Your task to perform on an android device: stop showing notifications on the lock screen Image 0: 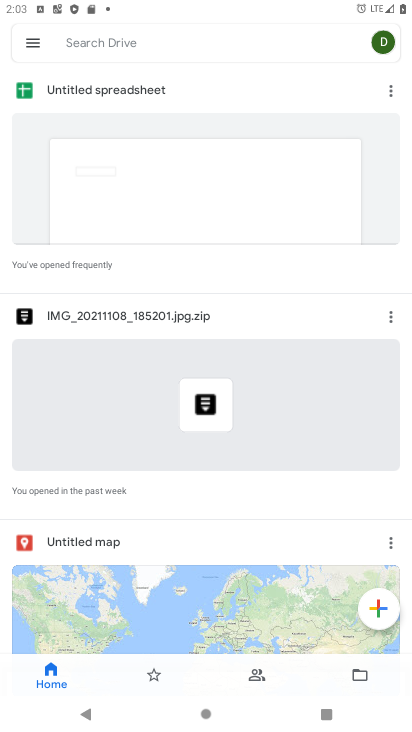
Step 0: press home button
Your task to perform on an android device: stop showing notifications on the lock screen Image 1: 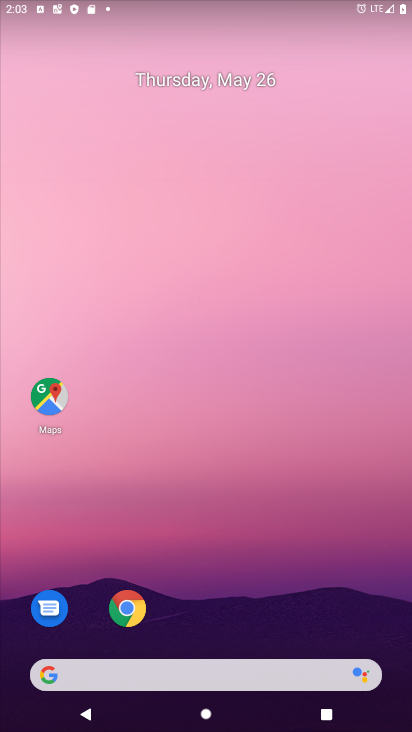
Step 1: drag from (353, 641) to (268, 184)
Your task to perform on an android device: stop showing notifications on the lock screen Image 2: 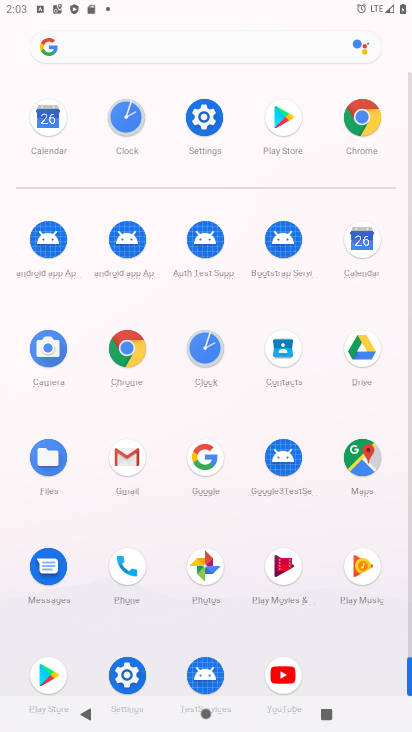
Step 2: click (126, 679)
Your task to perform on an android device: stop showing notifications on the lock screen Image 3: 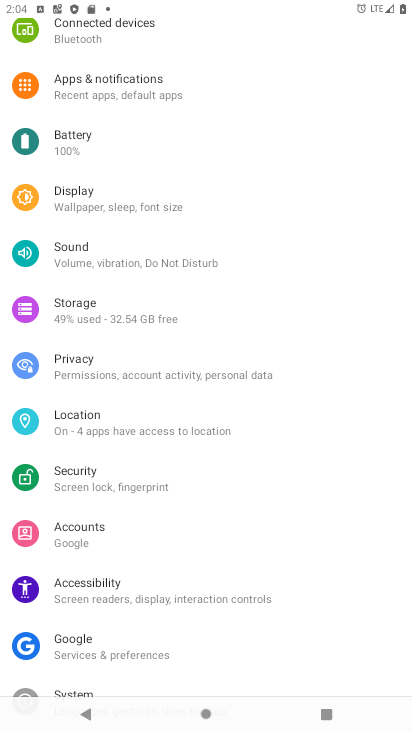
Step 3: click (89, 88)
Your task to perform on an android device: stop showing notifications on the lock screen Image 4: 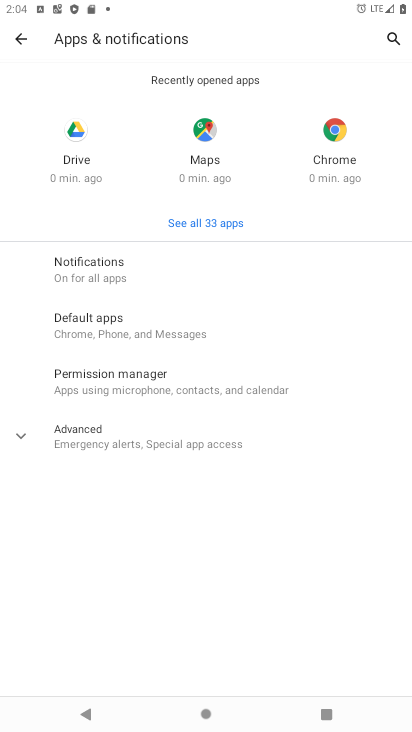
Step 4: click (110, 286)
Your task to perform on an android device: stop showing notifications on the lock screen Image 5: 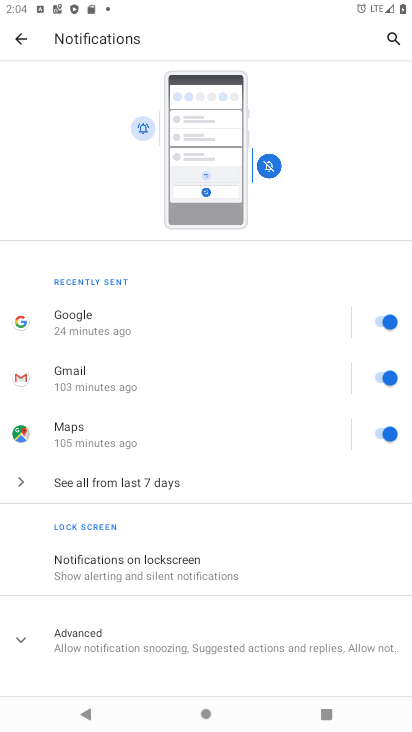
Step 5: click (148, 557)
Your task to perform on an android device: stop showing notifications on the lock screen Image 6: 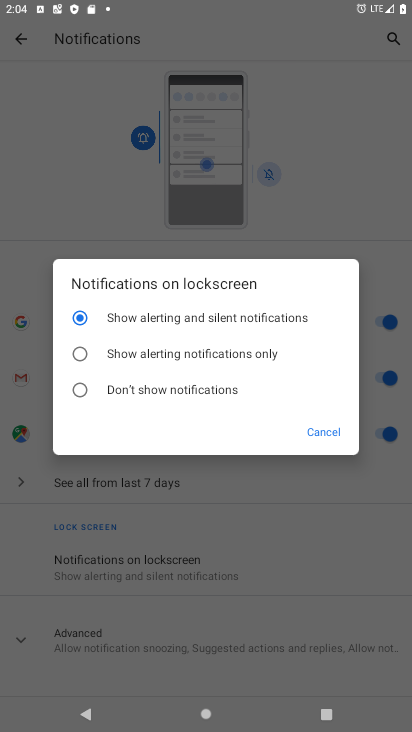
Step 6: click (81, 387)
Your task to perform on an android device: stop showing notifications on the lock screen Image 7: 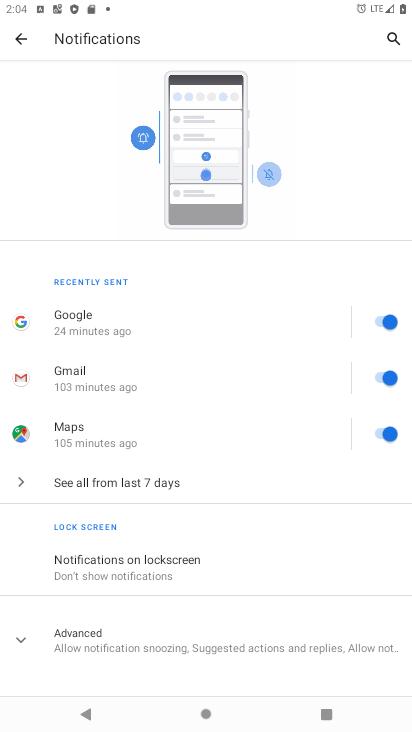
Step 7: task complete